Your task to perform on an android device: show emergency info Image 0: 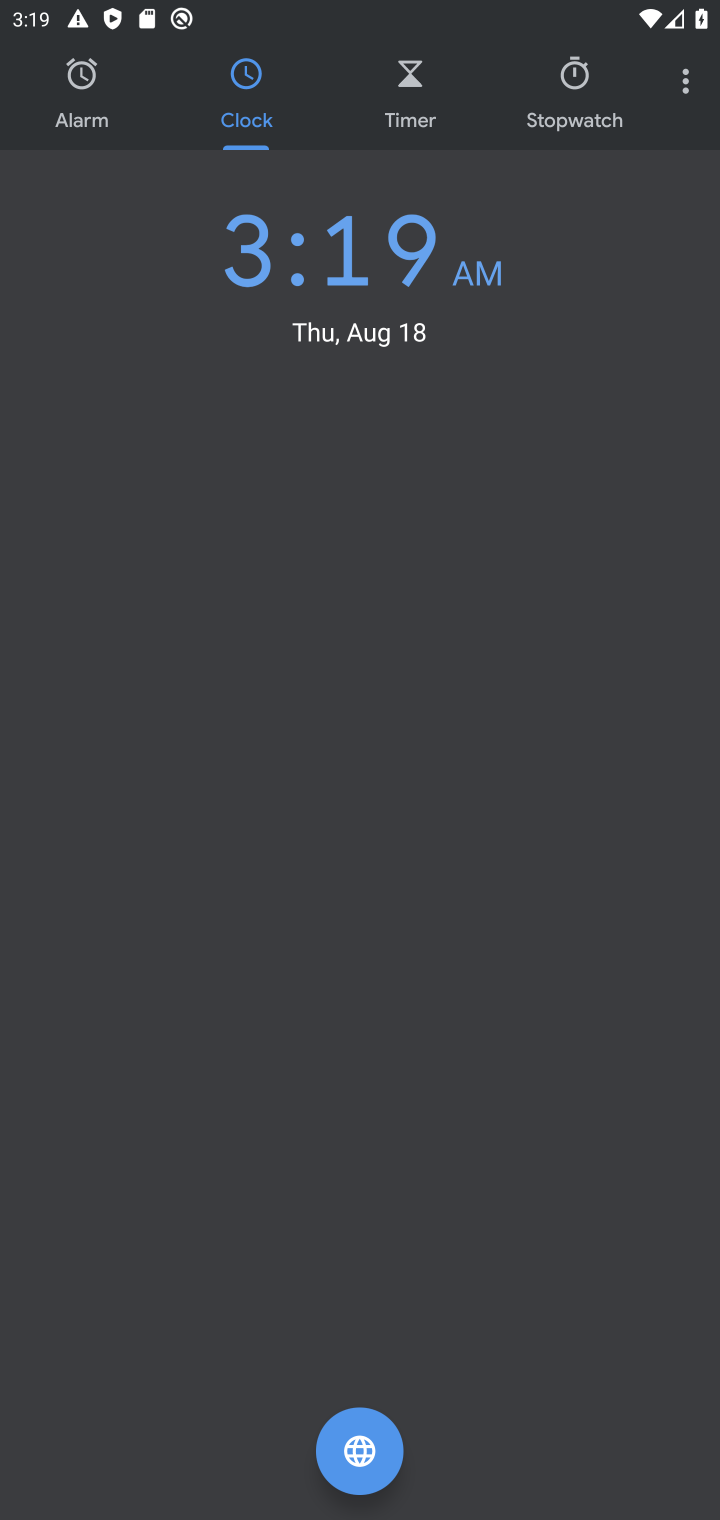
Step 0: task complete